Your task to perform on an android device: refresh tabs in the chrome app Image 0: 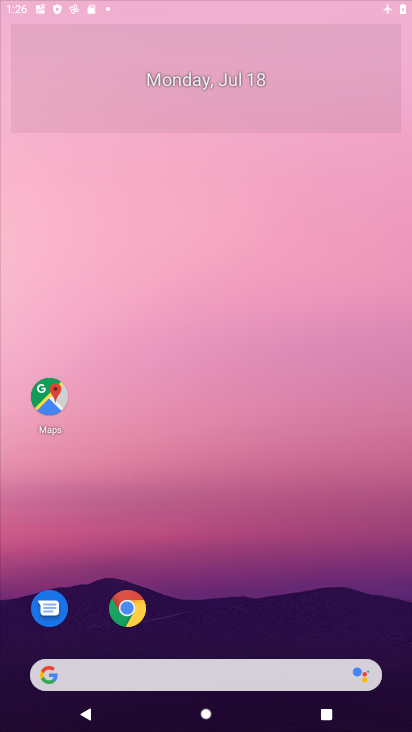
Step 0: drag from (373, 595) to (208, 53)
Your task to perform on an android device: refresh tabs in the chrome app Image 1: 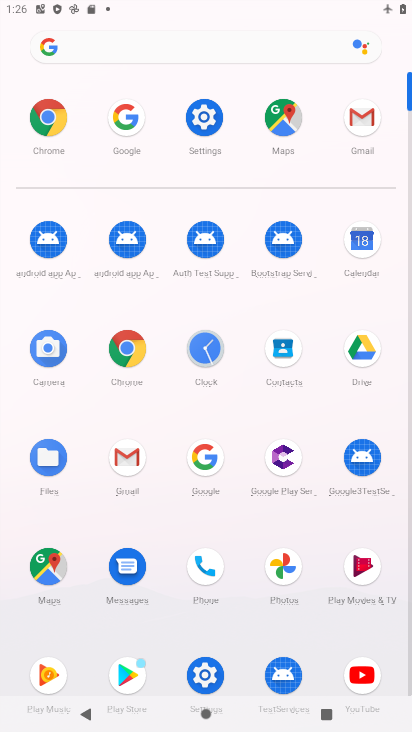
Step 1: click (122, 341)
Your task to perform on an android device: refresh tabs in the chrome app Image 2: 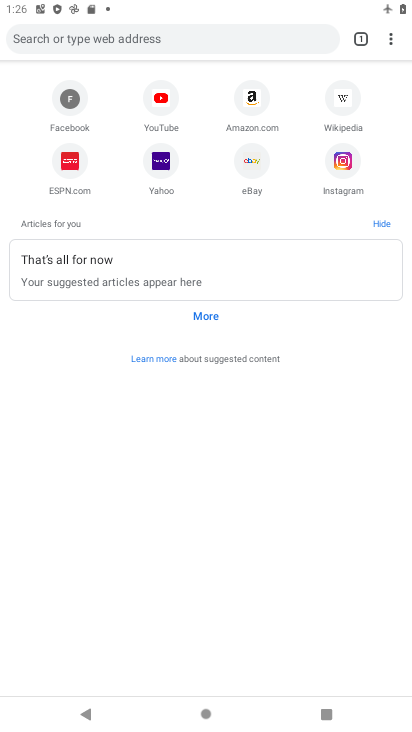
Step 2: click (389, 41)
Your task to perform on an android device: refresh tabs in the chrome app Image 3: 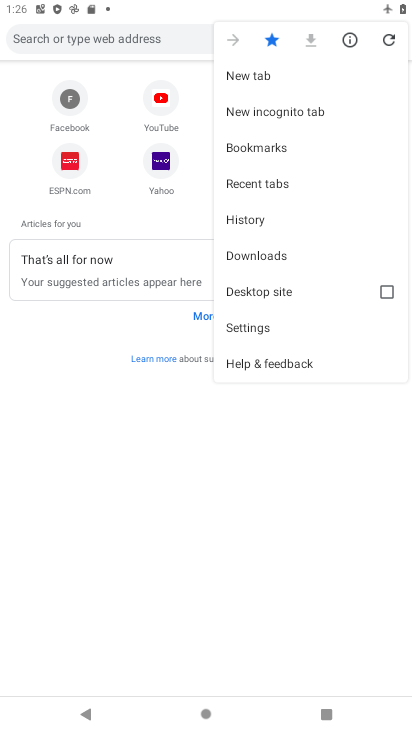
Step 3: click (389, 41)
Your task to perform on an android device: refresh tabs in the chrome app Image 4: 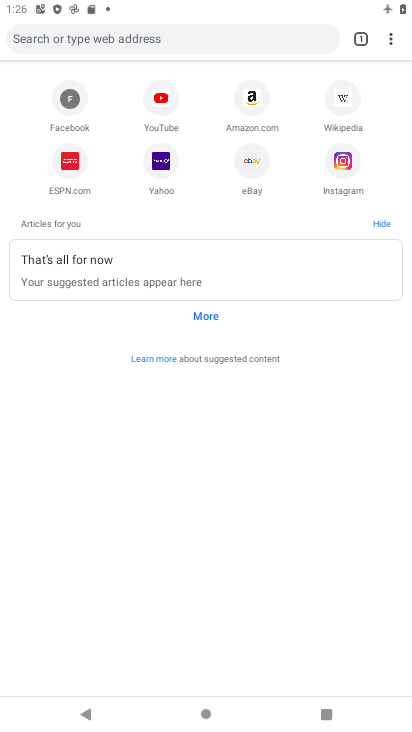
Step 4: task complete